Your task to perform on an android device: Go to calendar. Show me events next week Image 0: 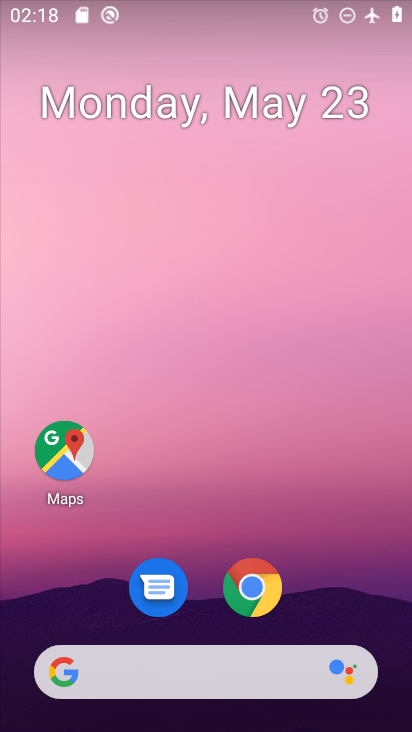
Step 0: drag from (360, 613) to (337, 131)
Your task to perform on an android device: Go to calendar. Show me events next week Image 1: 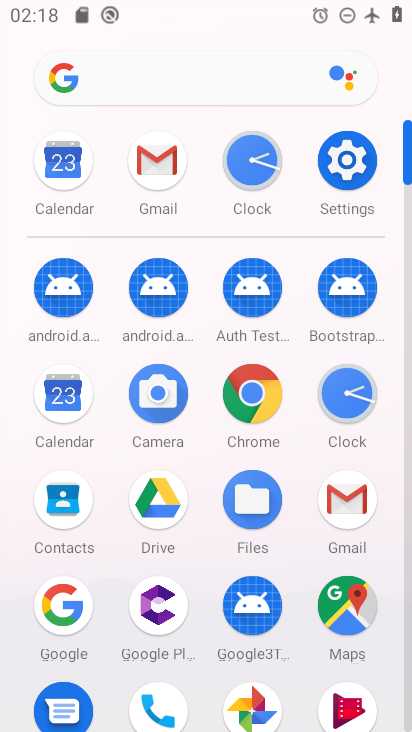
Step 1: click (73, 410)
Your task to perform on an android device: Go to calendar. Show me events next week Image 2: 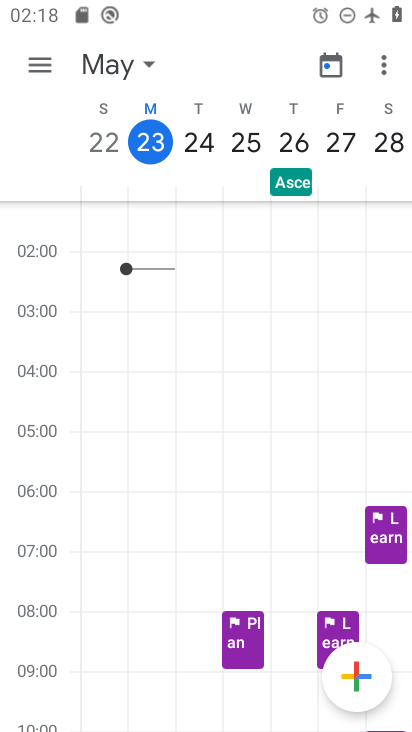
Step 2: task complete